Your task to perform on an android device: What's on my calendar today? Image 0: 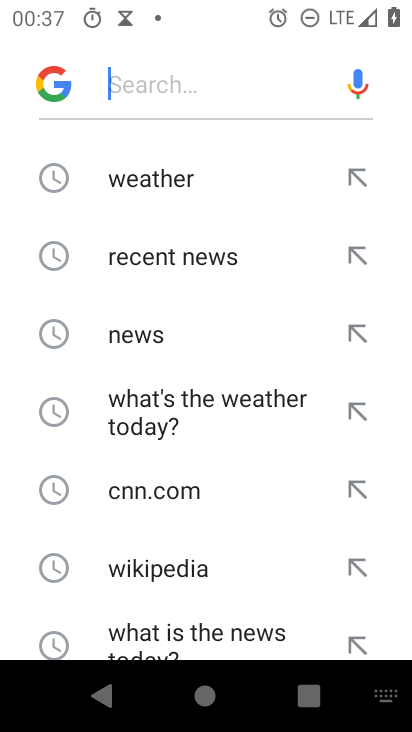
Step 0: press home button
Your task to perform on an android device: What's on my calendar today? Image 1: 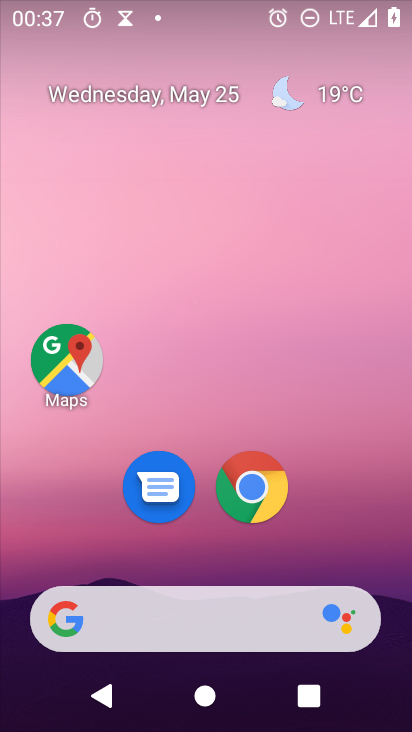
Step 1: drag from (364, 582) to (362, 15)
Your task to perform on an android device: What's on my calendar today? Image 2: 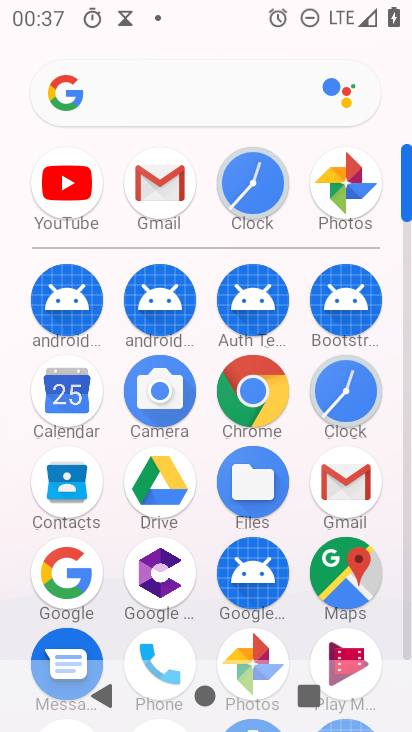
Step 2: click (60, 402)
Your task to perform on an android device: What's on my calendar today? Image 3: 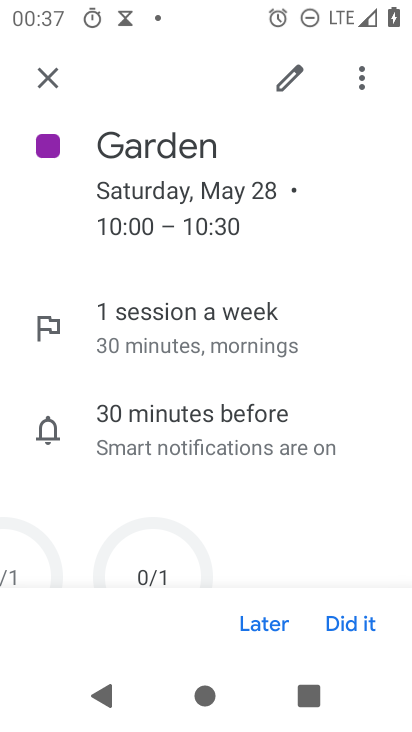
Step 3: click (51, 75)
Your task to perform on an android device: What's on my calendar today? Image 4: 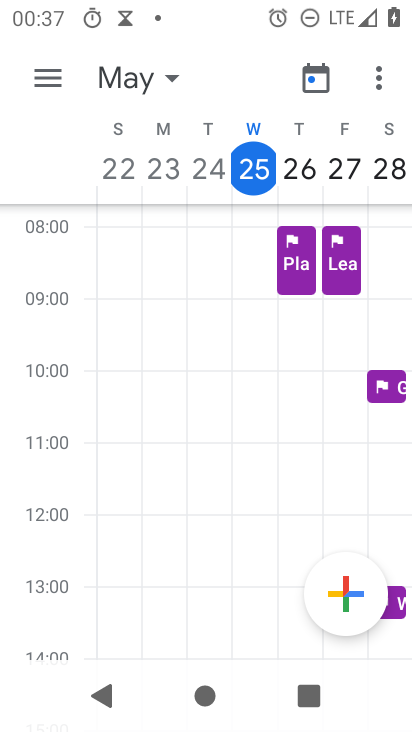
Step 4: click (49, 78)
Your task to perform on an android device: What's on my calendar today? Image 5: 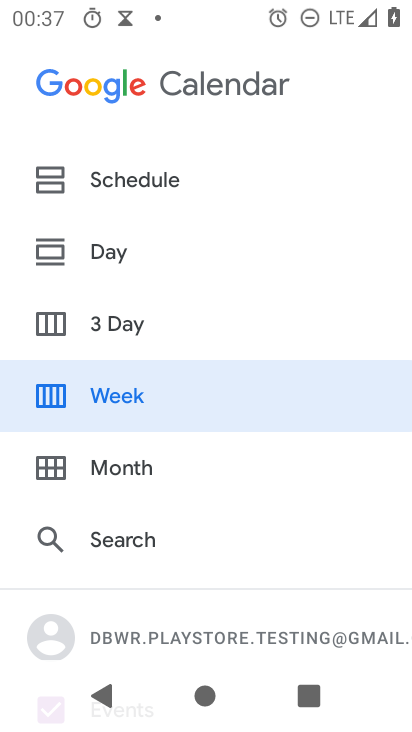
Step 5: click (69, 184)
Your task to perform on an android device: What's on my calendar today? Image 6: 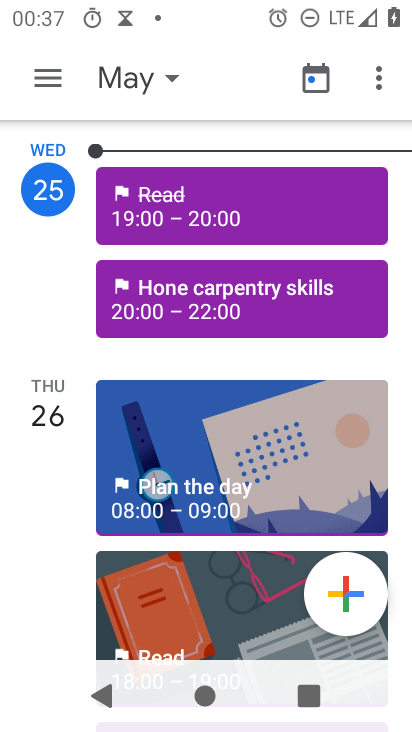
Step 6: click (175, 222)
Your task to perform on an android device: What's on my calendar today? Image 7: 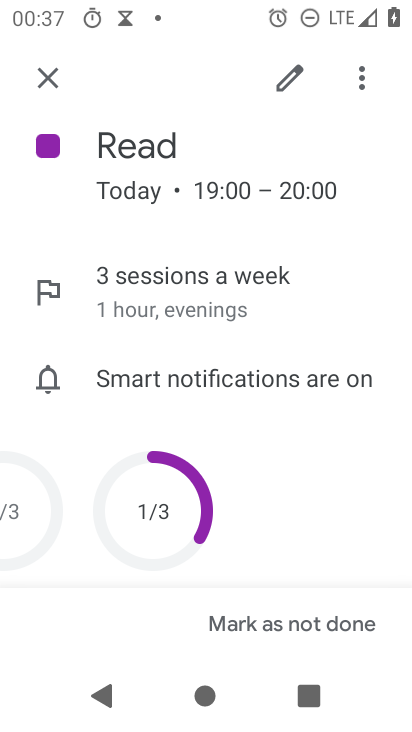
Step 7: click (55, 84)
Your task to perform on an android device: What's on my calendar today? Image 8: 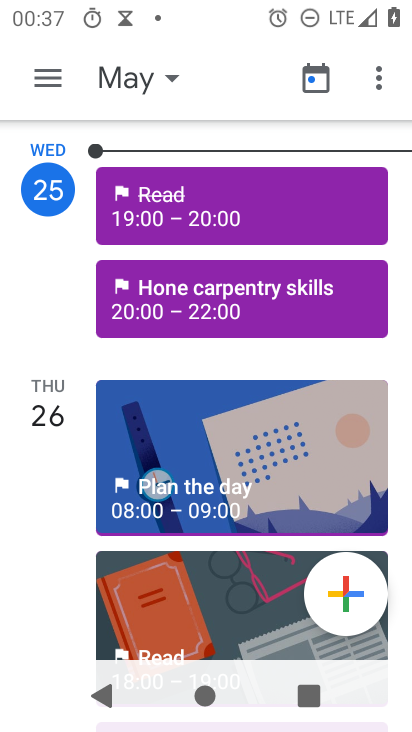
Step 8: click (48, 78)
Your task to perform on an android device: What's on my calendar today? Image 9: 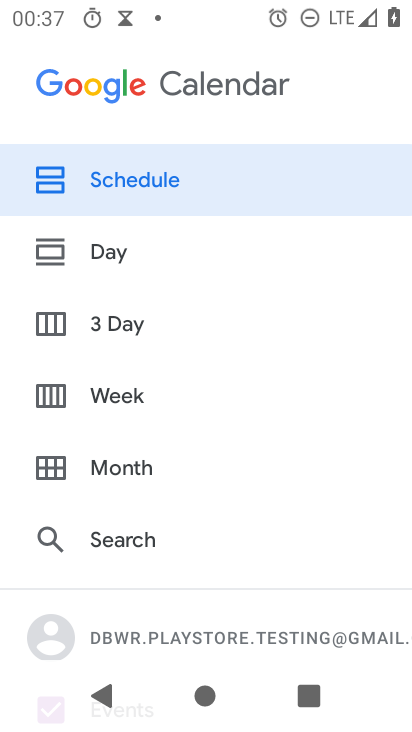
Step 9: click (76, 249)
Your task to perform on an android device: What's on my calendar today? Image 10: 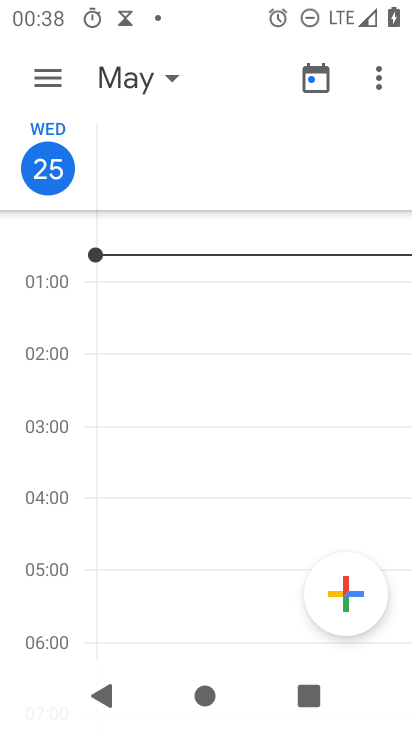
Step 10: task complete